Your task to perform on an android device: add a label to a message in the gmail app Image 0: 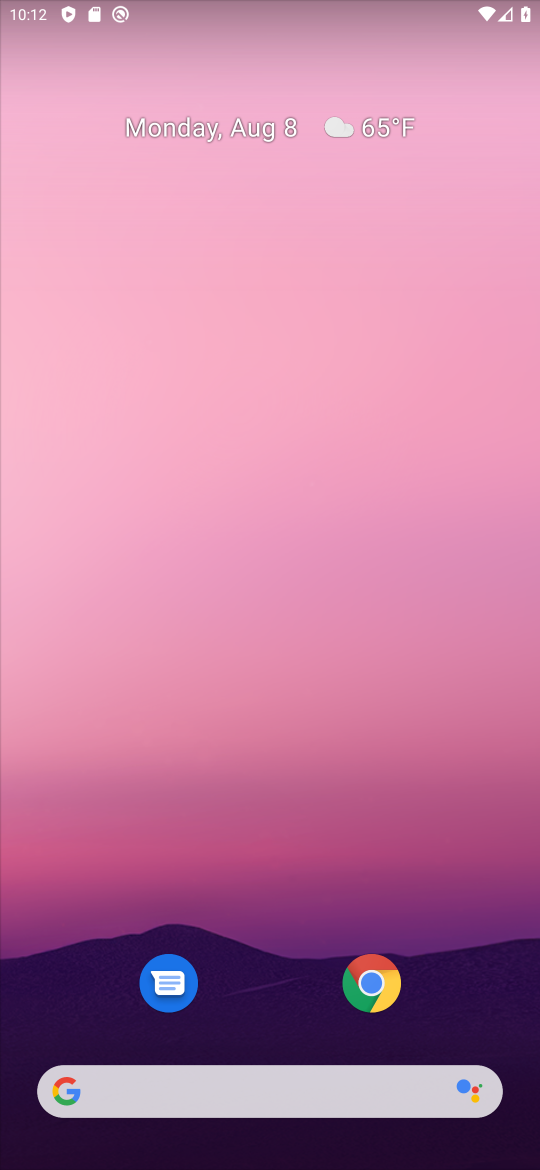
Step 0: drag from (301, 1017) to (292, 159)
Your task to perform on an android device: add a label to a message in the gmail app Image 1: 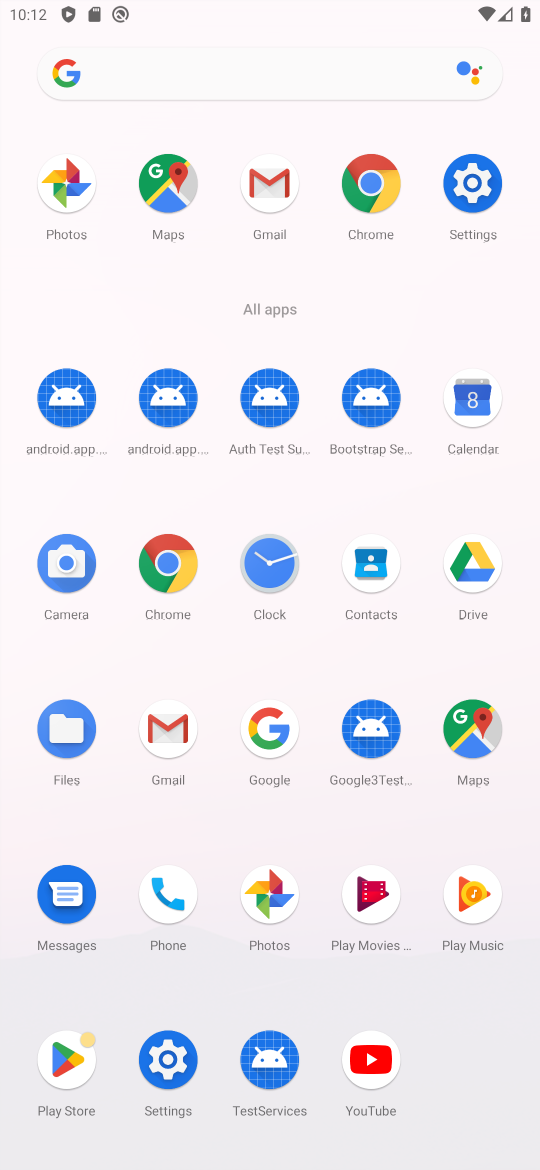
Step 1: click (268, 220)
Your task to perform on an android device: add a label to a message in the gmail app Image 2: 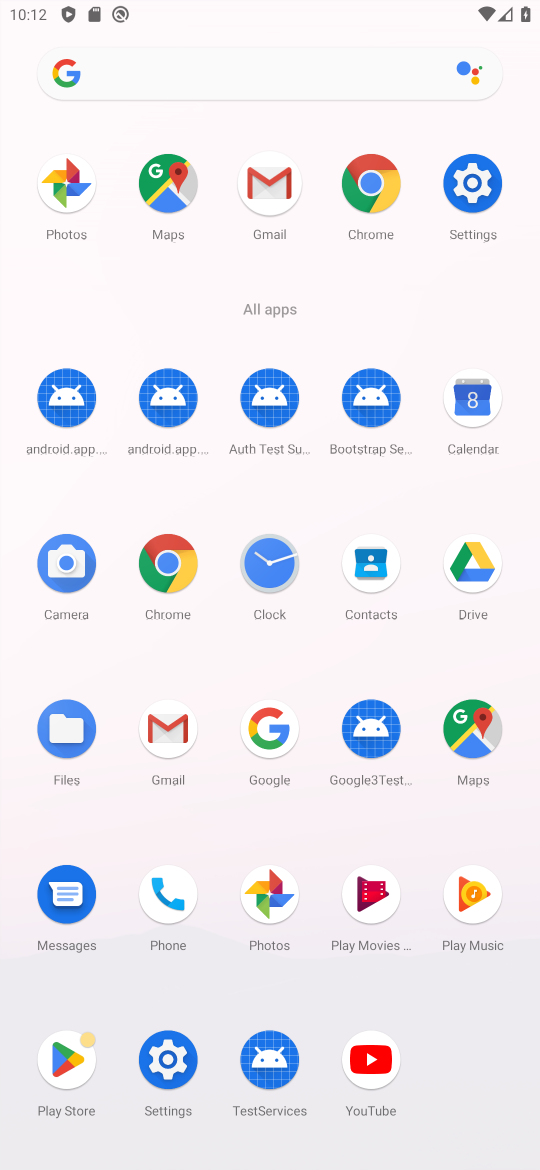
Step 2: task complete